Your task to perform on an android device: Open wifi settings Image 0: 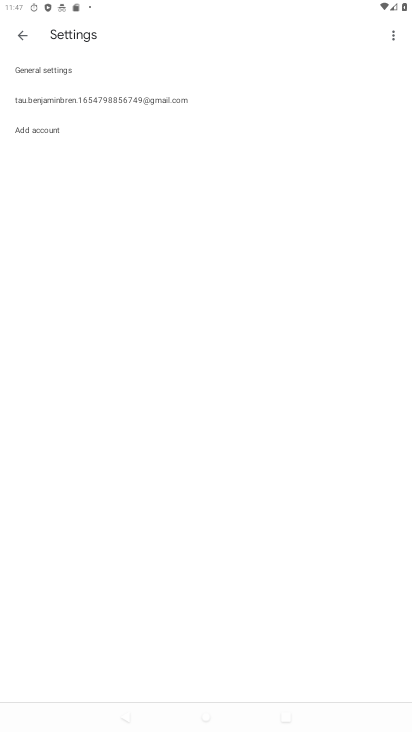
Step 0: press home button
Your task to perform on an android device: Open wifi settings Image 1: 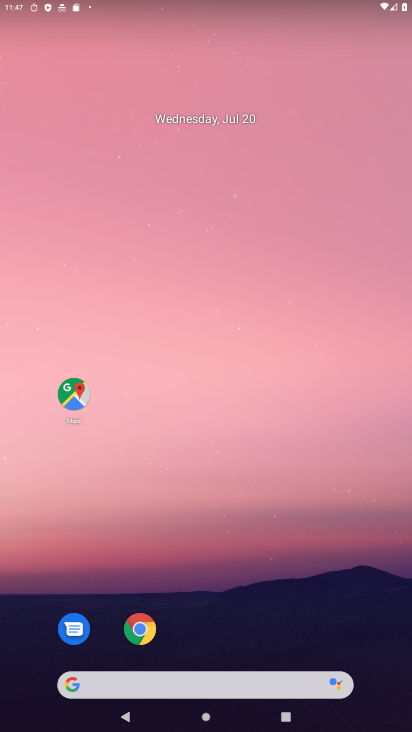
Step 1: drag from (322, 685) to (324, 59)
Your task to perform on an android device: Open wifi settings Image 2: 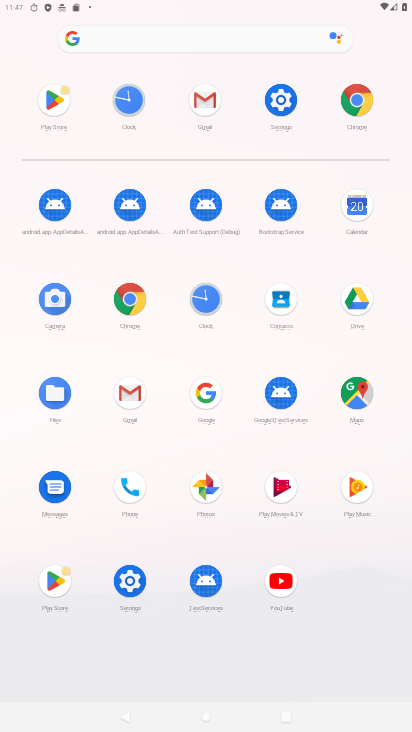
Step 2: click (280, 101)
Your task to perform on an android device: Open wifi settings Image 3: 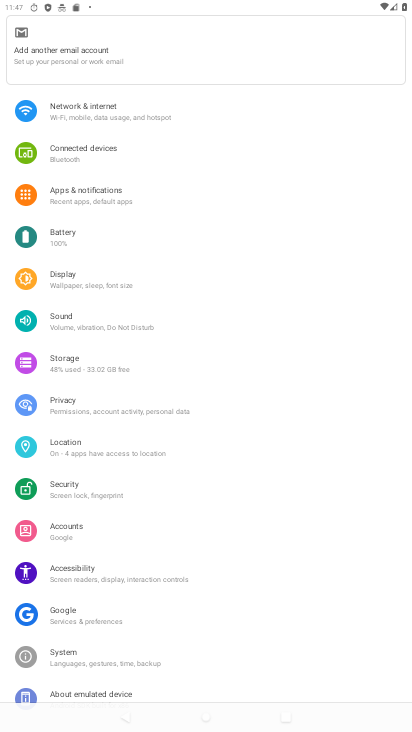
Step 3: click (123, 105)
Your task to perform on an android device: Open wifi settings Image 4: 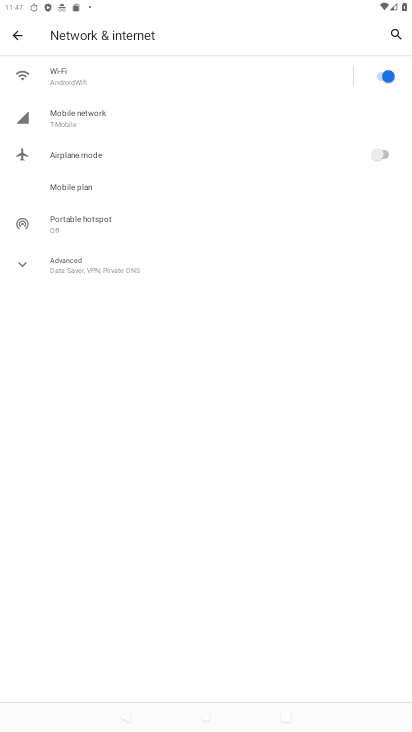
Step 4: click (113, 73)
Your task to perform on an android device: Open wifi settings Image 5: 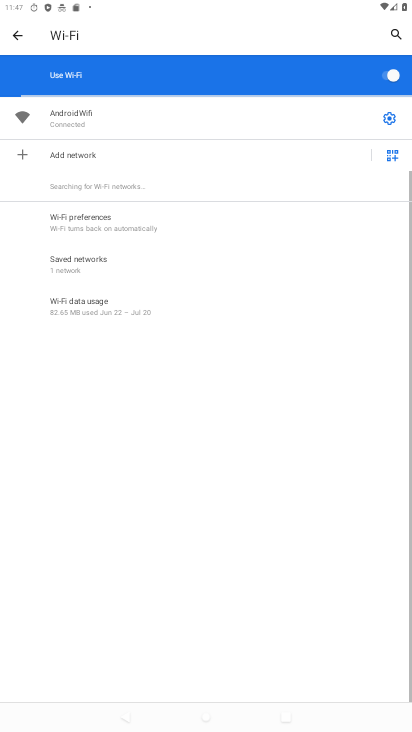
Step 5: task complete